Your task to perform on an android device: move an email to a new category in the gmail app Image 0: 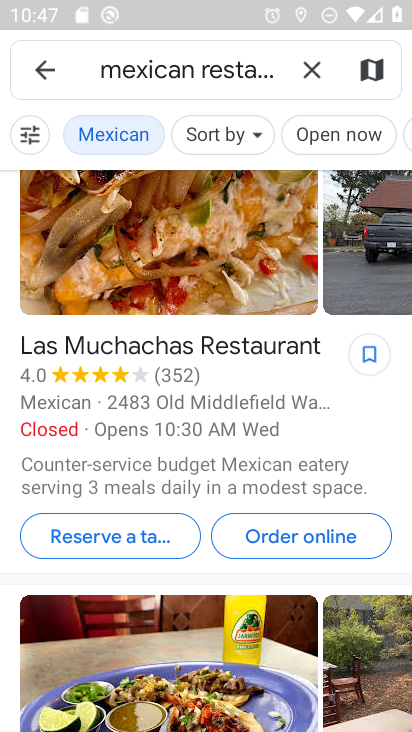
Step 0: press home button
Your task to perform on an android device: move an email to a new category in the gmail app Image 1: 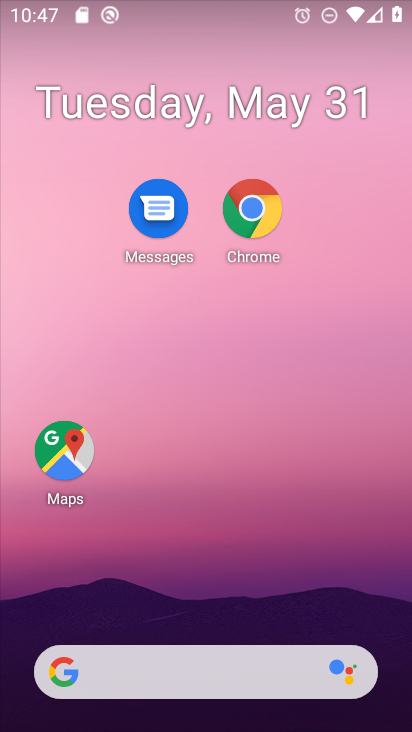
Step 1: drag from (216, 616) to (215, 5)
Your task to perform on an android device: move an email to a new category in the gmail app Image 2: 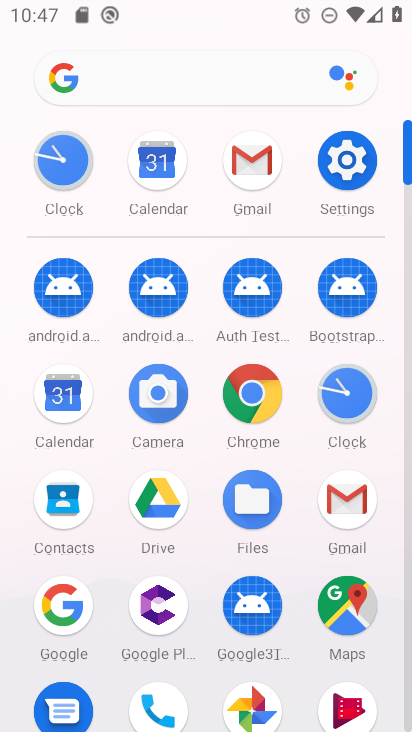
Step 2: click (249, 156)
Your task to perform on an android device: move an email to a new category in the gmail app Image 3: 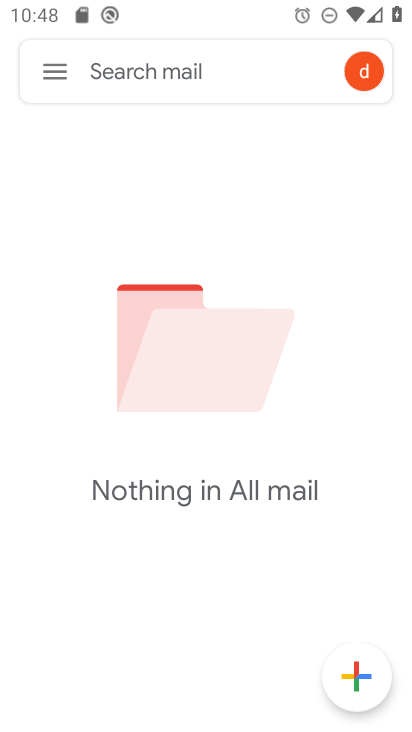
Step 3: task complete